Your task to perform on an android device: check the backup settings in the google photos Image 0: 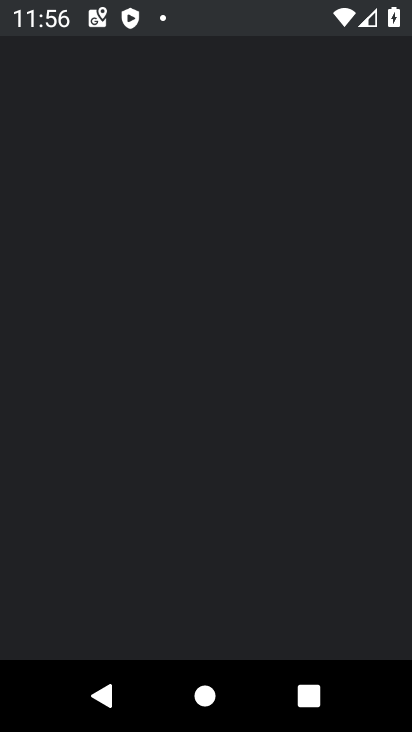
Step 0: drag from (204, 547) to (234, 284)
Your task to perform on an android device: check the backup settings in the google photos Image 1: 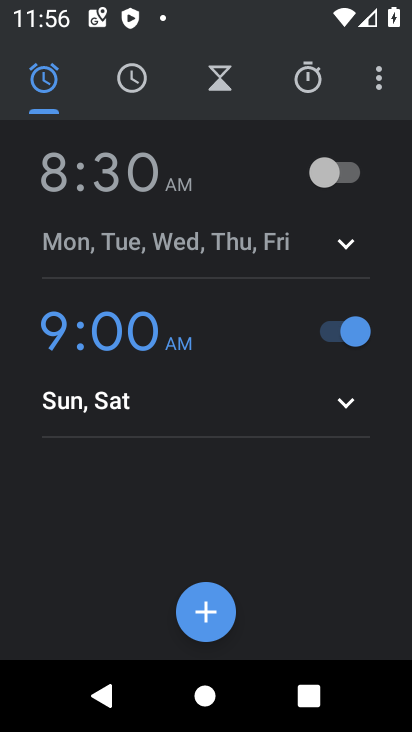
Step 1: press home button
Your task to perform on an android device: check the backup settings in the google photos Image 2: 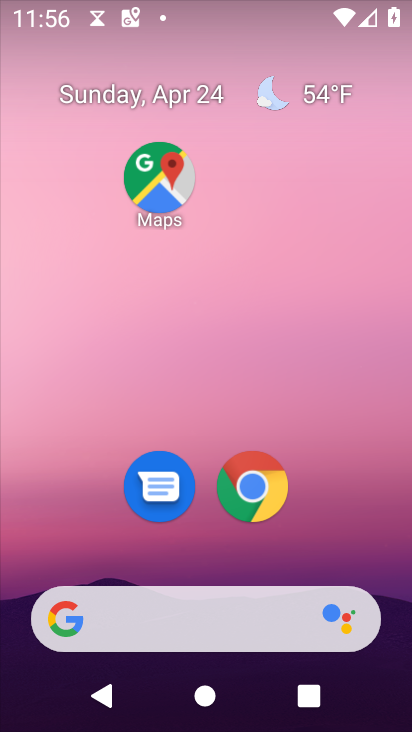
Step 2: drag from (235, 559) to (296, 176)
Your task to perform on an android device: check the backup settings in the google photos Image 3: 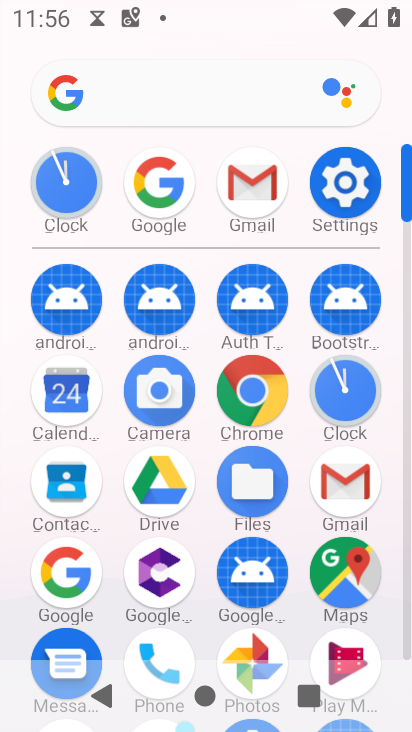
Step 3: click (257, 644)
Your task to perform on an android device: check the backup settings in the google photos Image 4: 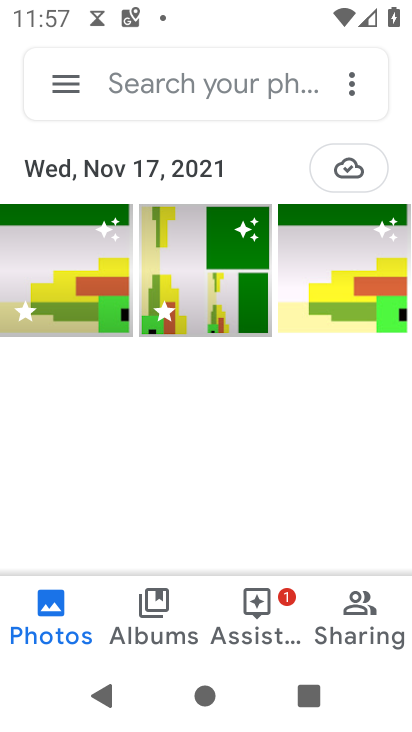
Step 4: click (347, 86)
Your task to perform on an android device: check the backup settings in the google photos Image 5: 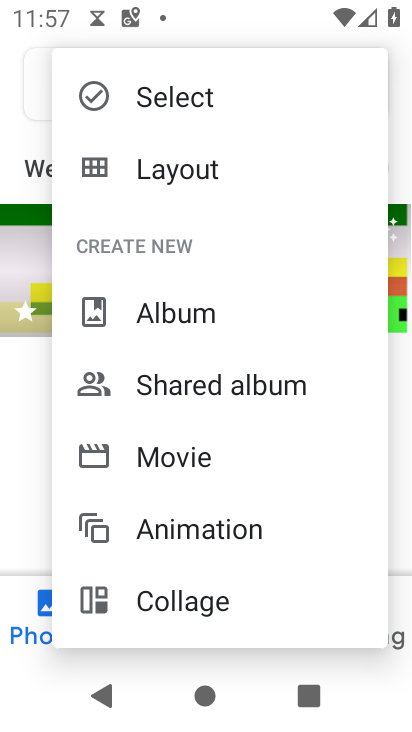
Step 5: click (27, 130)
Your task to perform on an android device: check the backup settings in the google photos Image 6: 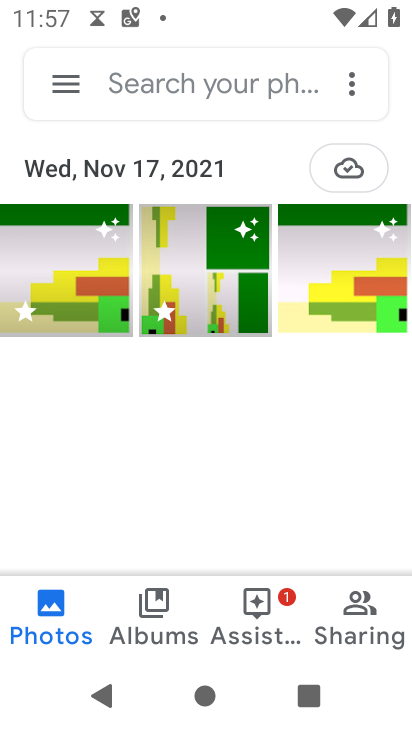
Step 6: click (52, 87)
Your task to perform on an android device: check the backup settings in the google photos Image 7: 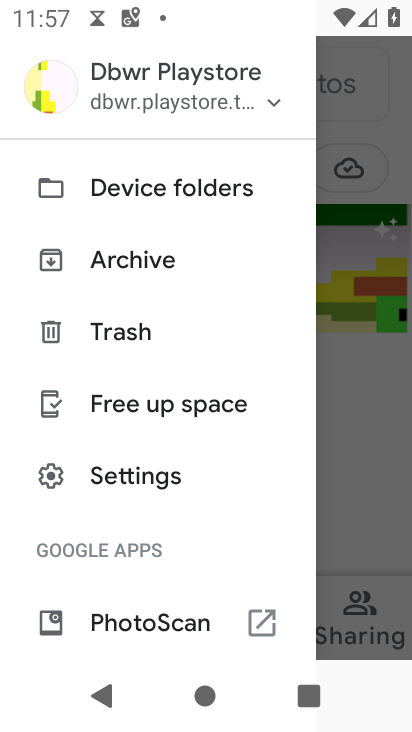
Step 7: click (199, 116)
Your task to perform on an android device: check the backup settings in the google photos Image 8: 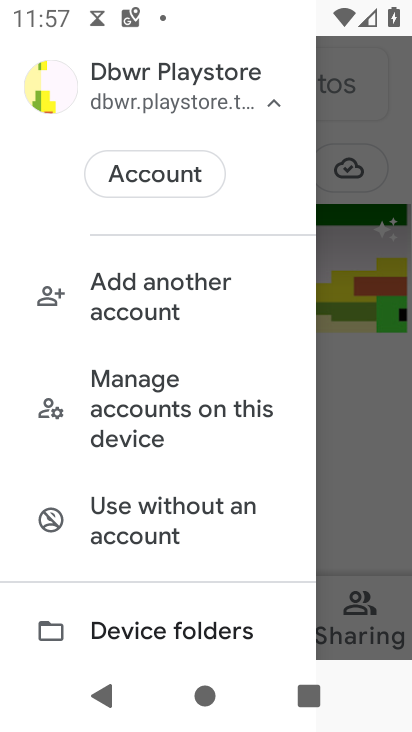
Step 8: click (176, 191)
Your task to perform on an android device: check the backup settings in the google photos Image 9: 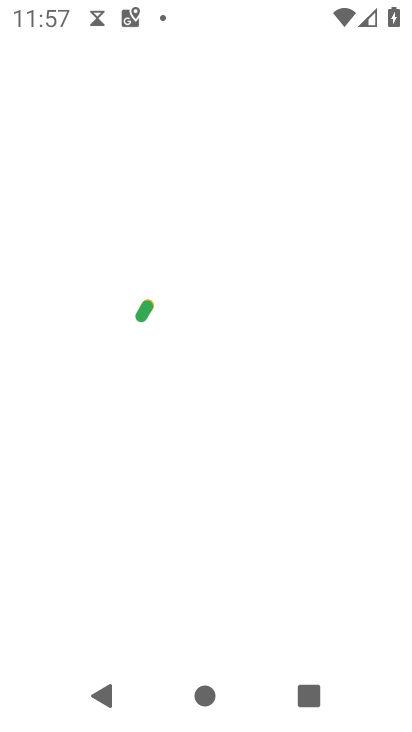
Step 9: click (90, 697)
Your task to perform on an android device: check the backup settings in the google photos Image 10: 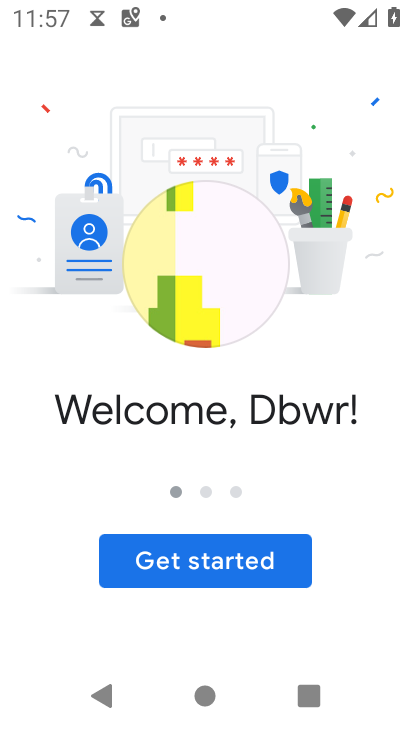
Step 10: click (111, 719)
Your task to perform on an android device: check the backup settings in the google photos Image 11: 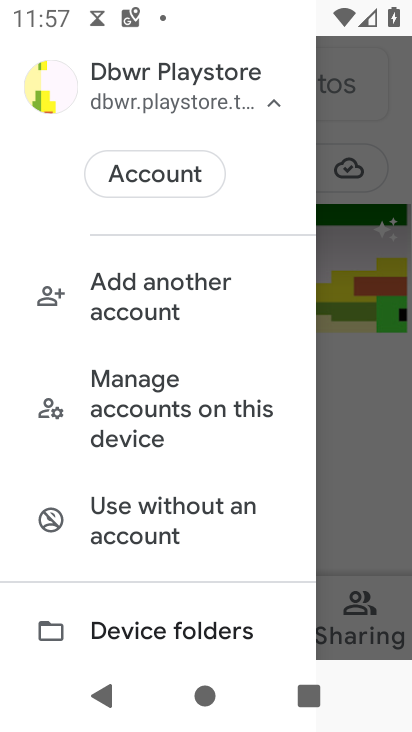
Step 11: drag from (128, 516) to (213, 238)
Your task to perform on an android device: check the backup settings in the google photos Image 12: 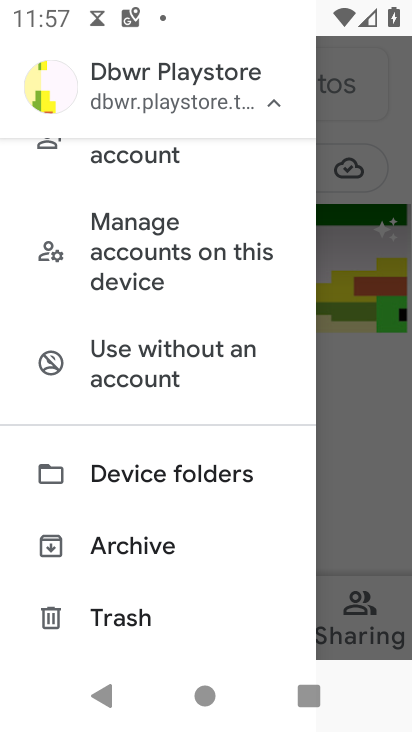
Step 12: drag from (169, 580) to (228, 268)
Your task to perform on an android device: check the backup settings in the google photos Image 13: 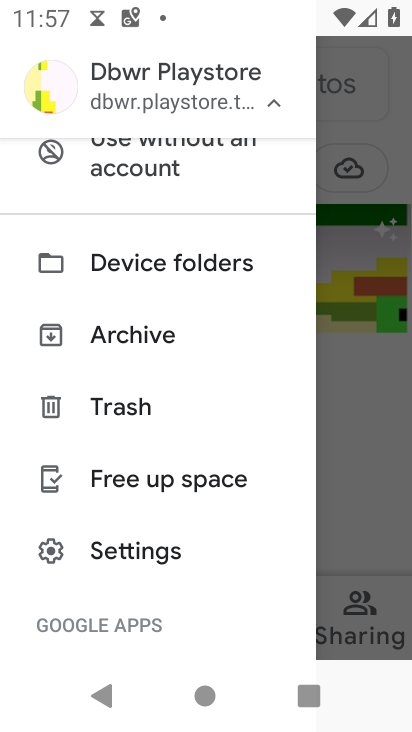
Step 13: click (159, 561)
Your task to perform on an android device: check the backup settings in the google photos Image 14: 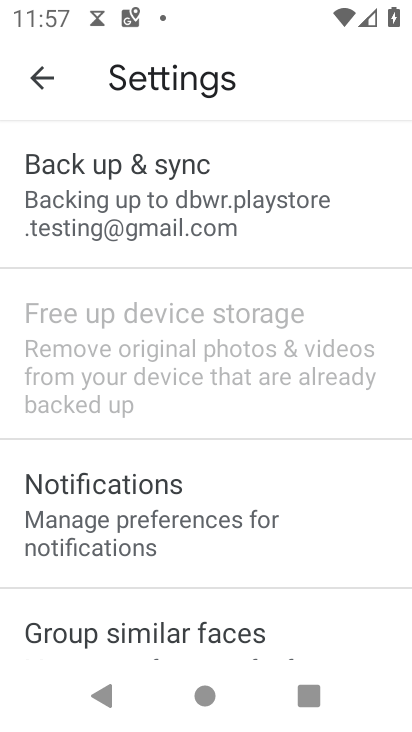
Step 14: click (266, 216)
Your task to perform on an android device: check the backup settings in the google photos Image 15: 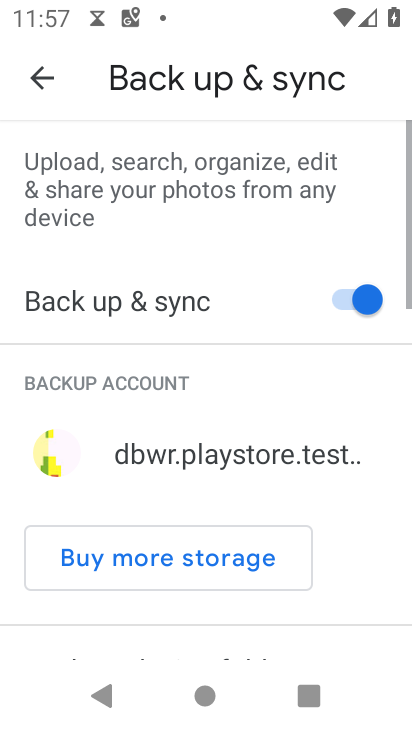
Step 15: task complete